Your task to perform on an android device: Show me productivity apps on the Play Store Image 0: 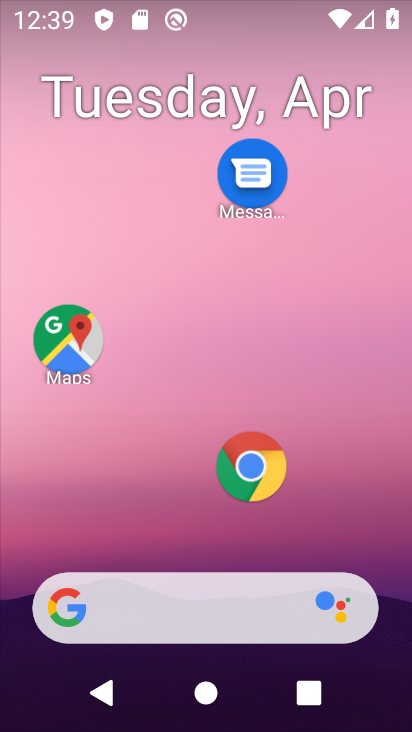
Step 0: drag from (104, 514) to (158, 52)
Your task to perform on an android device: Show me productivity apps on the Play Store Image 1: 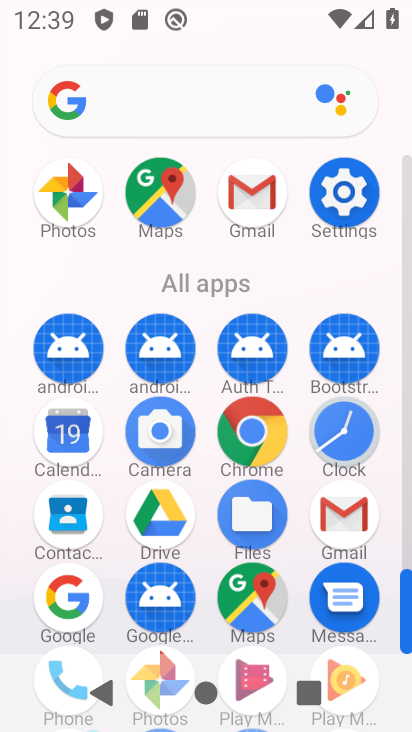
Step 1: drag from (202, 560) to (253, 308)
Your task to perform on an android device: Show me productivity apps on the Play Store Image 2: 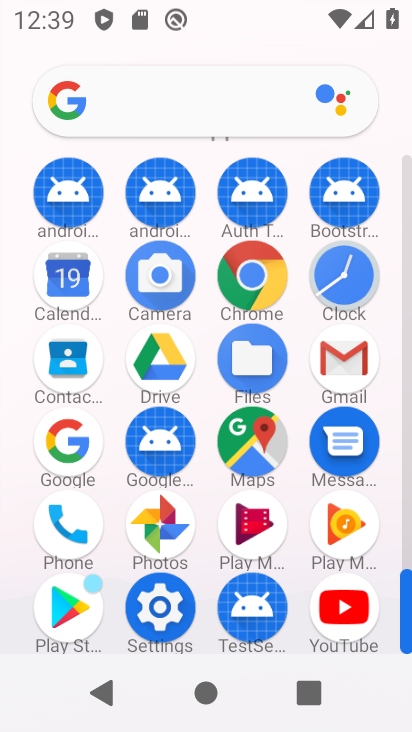
Step 2: click (78, 605)
Your task to perform on an android device: Show me productivity apps on the Play Store Image 3: 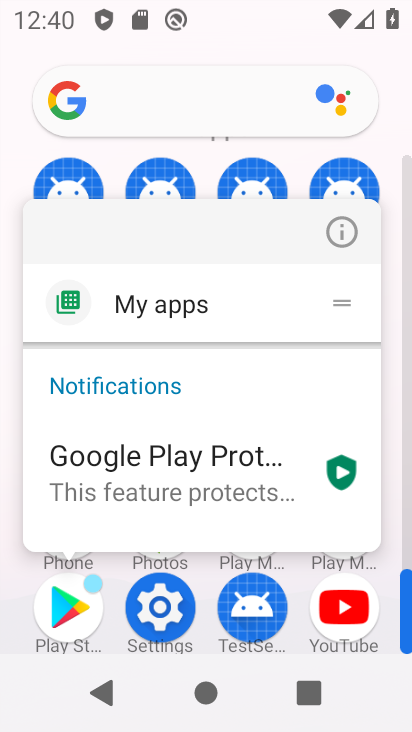
Step 3: click (77, 591)
Your task to perform on an android device: Show me productivity apps on the Play Store Image 4: 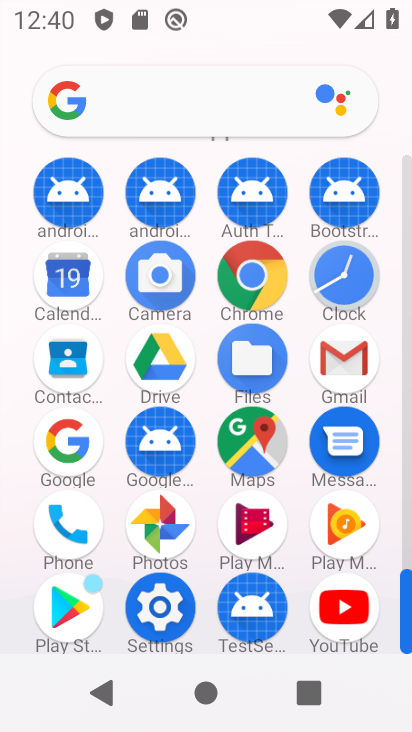
Step 4: click (77, 591)
Your task to perform on an android device: Show me productivity apps on the Play Store Image 5: 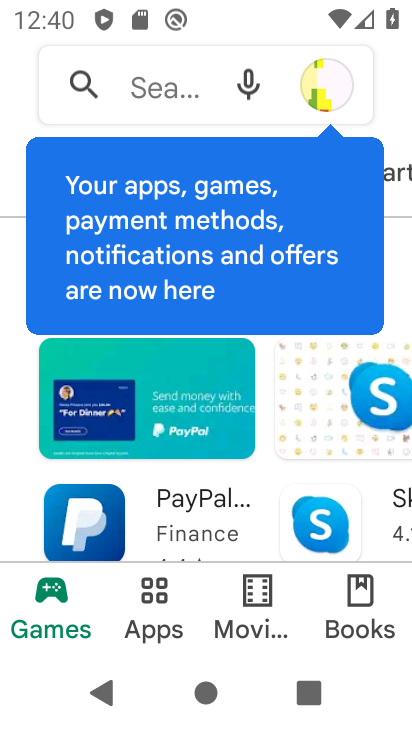
Step 5: click (156, 586)
Your task to perform on an android device: Show me productivity apps on the Play Store Image 6: 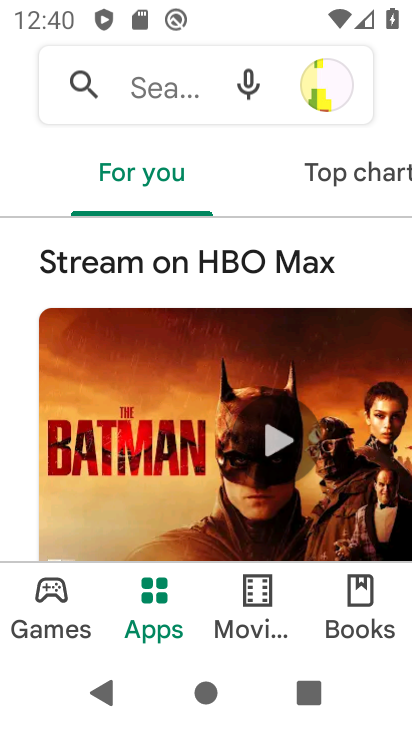
Step 6: drag from (340, 177) to (133, 158)
Your task to perform on an android device: Show me productivity apps on the Play Store Image 7: 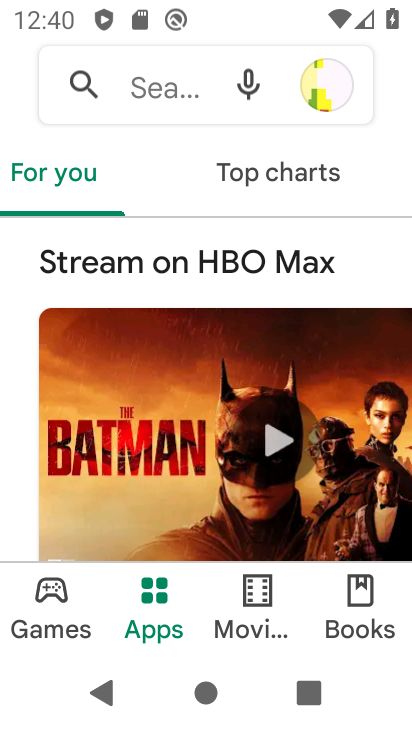
Step 7: drag from (332, 168) to (128, 156)
Your task to perform on an android device: Show me productivity apps on the Play Store Image 8: 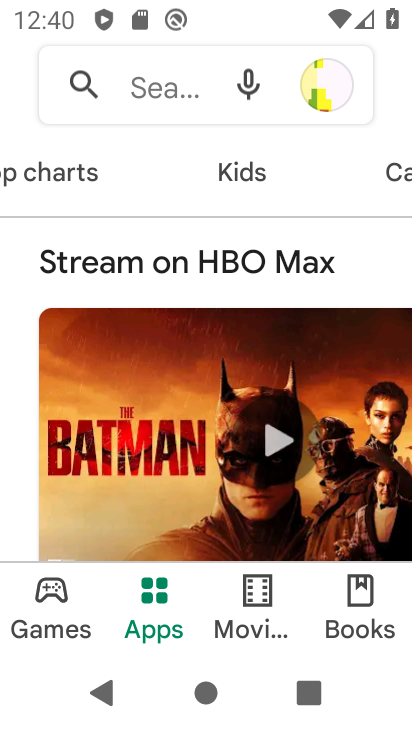
Step 8: drag from (381, 183) to (76, 140)
Your task to perform on an android device: Show me productivity apps on the Play Store Image 9: 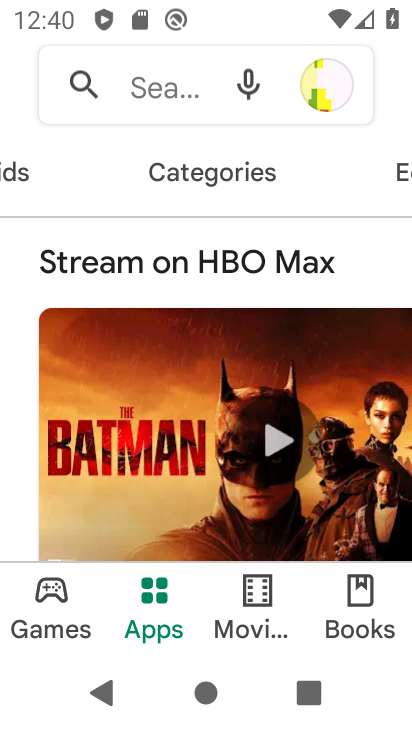
Step 9: click (226, 170)
Your task to perform on an android device: Show me productivity apps on the Play Store Image 10: 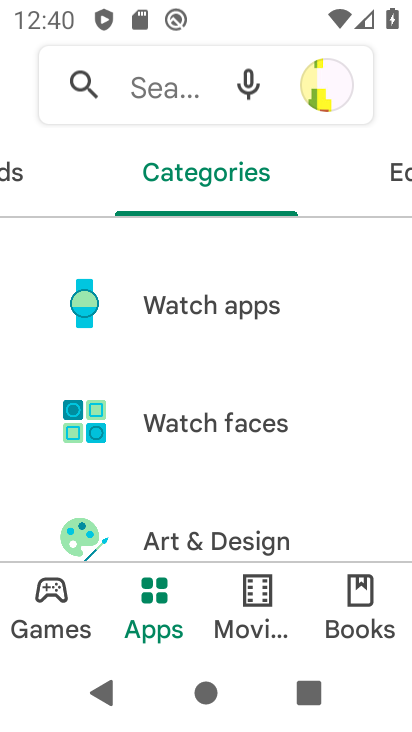
Step 10: drag from (271, 466) to (258, 301)
Your task to perform on an android device: Show me productivity apps on the Play Store Image 11: 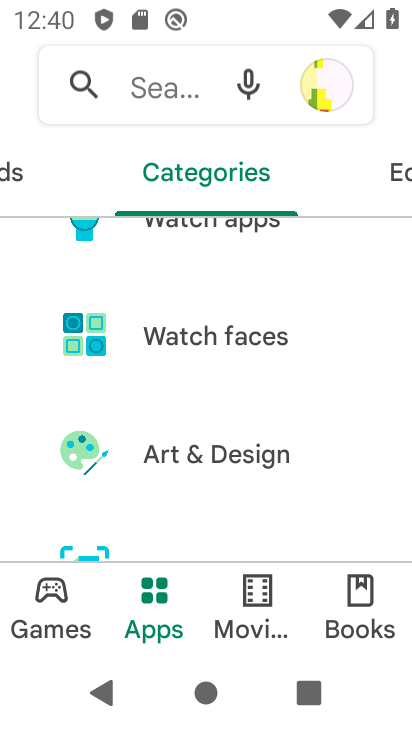
Step 11: drag from (201, 477) to (216, 311)
Your task to perform on an android device: Show me productivity apps on the Play Store Image 12: 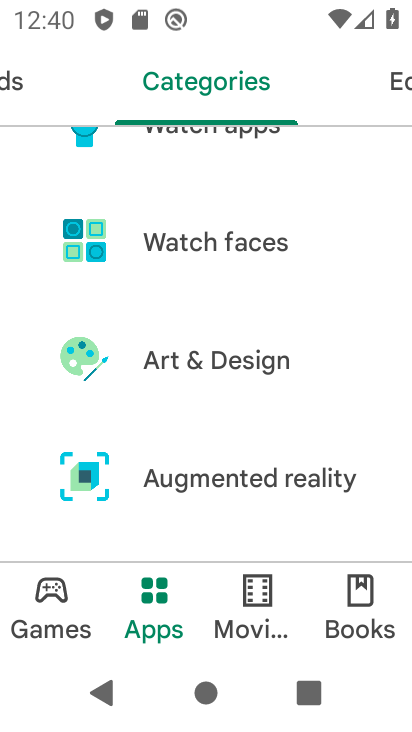
Step 12: drag from (178, 464) to (172, 228)
Your task to perform on an android device: Show me productivity apps on the Play Store Image 13: 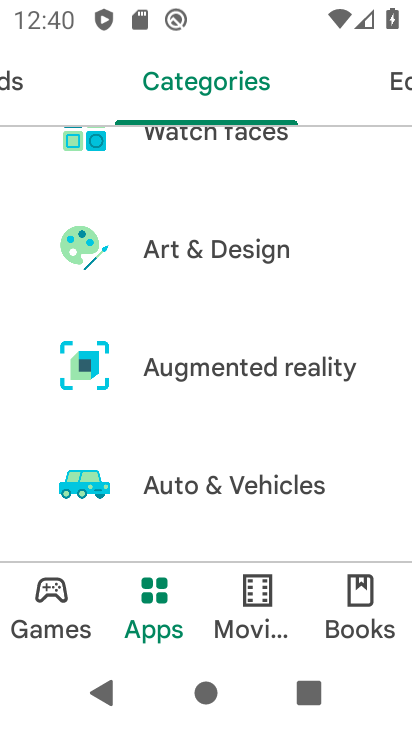
Step 13: drag from (113, 458) to (117, 209)
Your task to perform on an android device: Show me productivity apps on the Play Store Image 14: 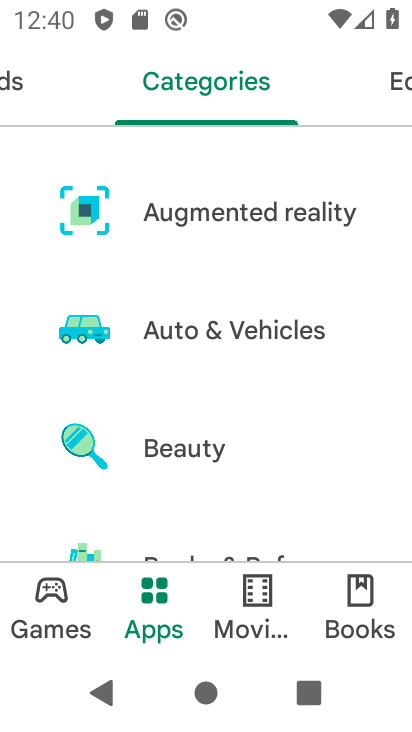
Step 14: drag from (199, 470) to (189, 252)
Your task to perform on an android device: Show me productivity apps on the Play Store Image 15: 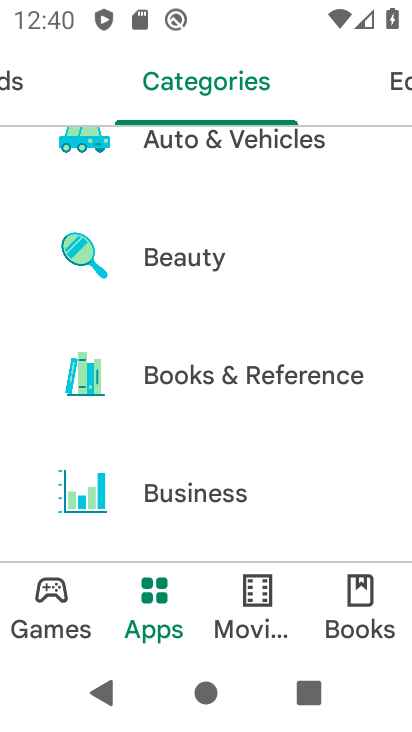
Step 15: drag from (153, 421) to (165, 224)
Your task to perform on an android device: Show me productivity apps on the Play Store Image 16: 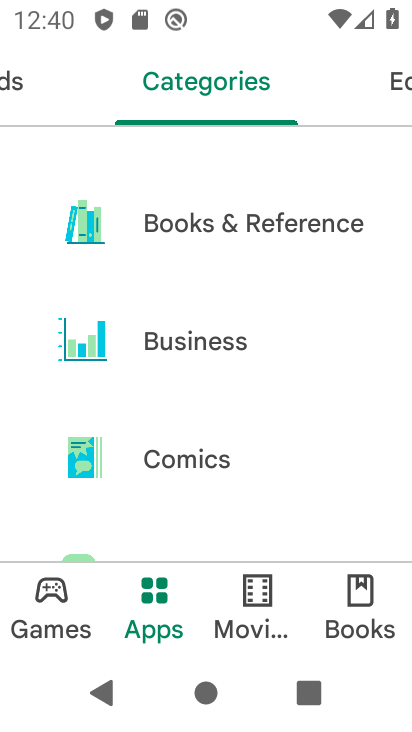
Step 16: drag from (124, 498) to (54, 296)
Your task to perform on an android device: Show me productivity apps on the Play Store Image 17: 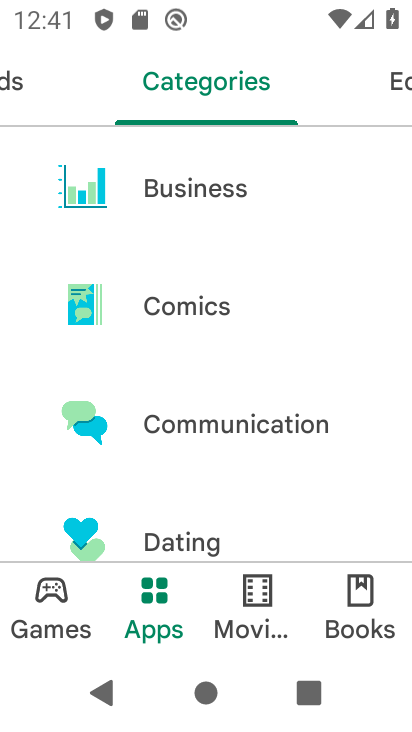
Step 17: drag from (112, 481) to (87, 300)
Your task to perform on an android device: Show me productivity apps on the Play Store Image 18: 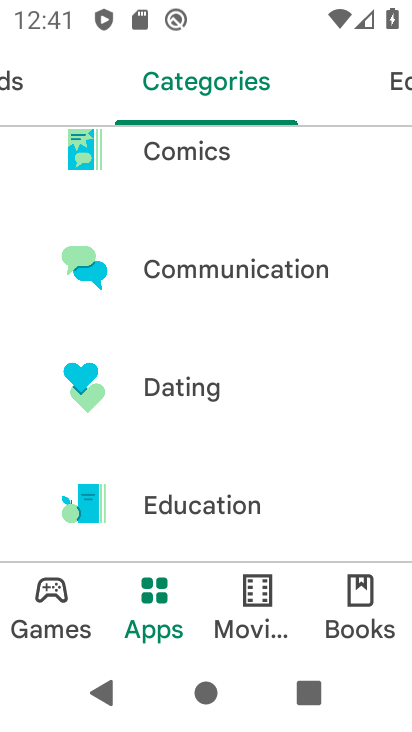
Step 18: drag from (111, 509) to (62, 314)
Your task to perform on an android device: Show me productivity apps on the Play Store Image 19: 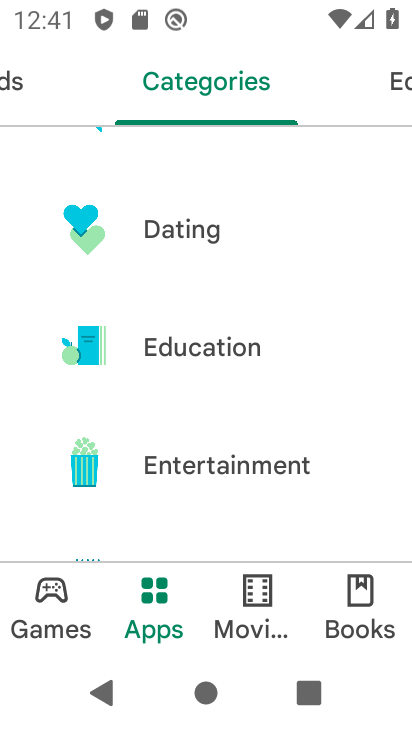
Step 19: drag from (105, 520) to (70, 313)
Your task to perform on an android device: Show me productivity apps on the Play Store Image 20: 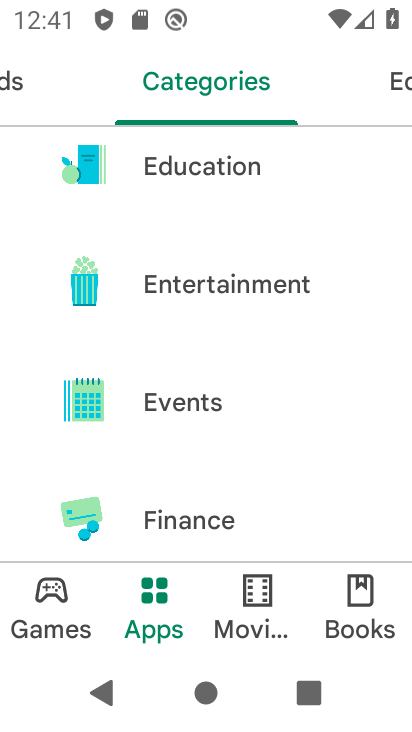
Step 20: drag from (131, 520) to (111, 357)
Your task to perform on an android device: Show me productivity apps on the Play Store Image 21: 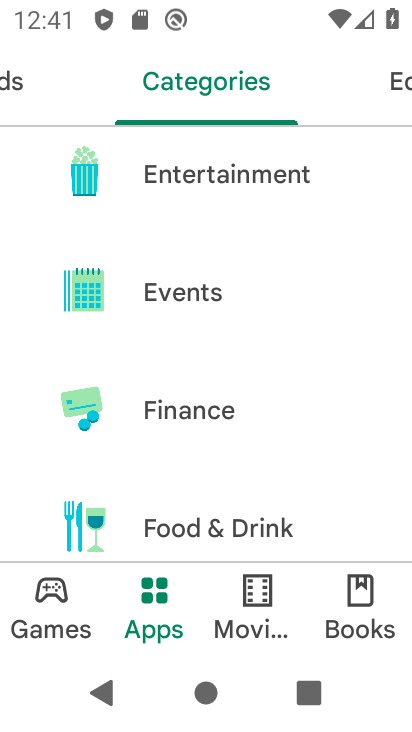
Step 21: drag from (116, 502) to (122, 353)
Your task to perform on an android device: Show me productivity apps on the Play Store Image 22: 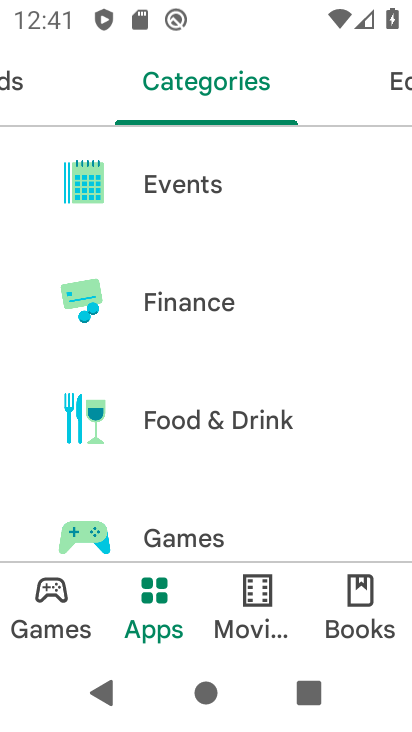
Step 22: drag from (94, 489) to (103, 334)
Your task to perform on an android device: Show me productivity apps on the Play Store Image 23: 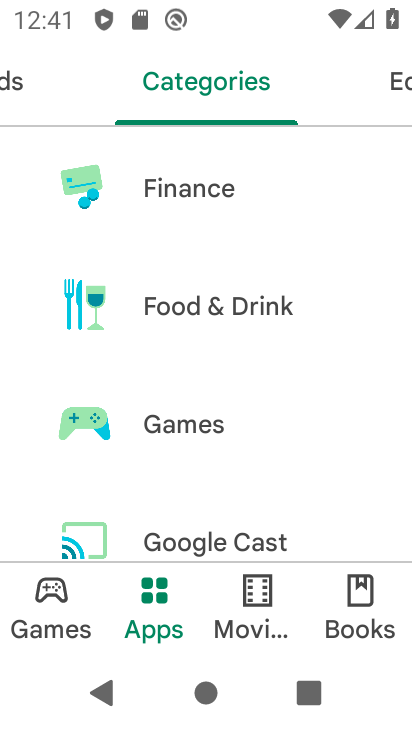
Step 23: drag from (138, 478) to (133, 246)
Your task to perform on an android device: Show me productivity apps on the Play Store Image 24: 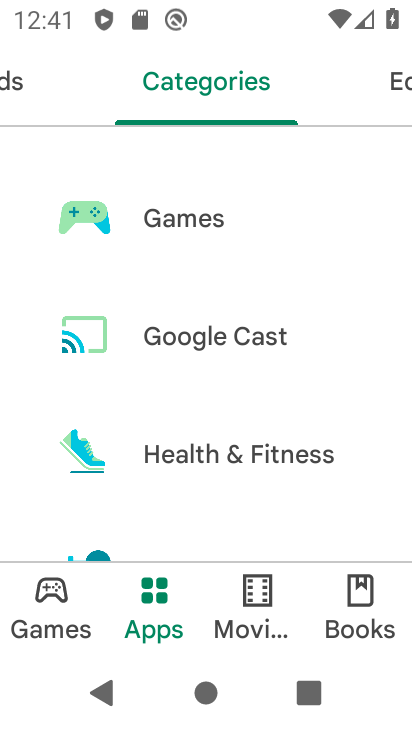
Step 24: drag from (146, 489) to (116, 338)
Your task to perform on an android device: Show me productivity apps on the Play Store Image 25: 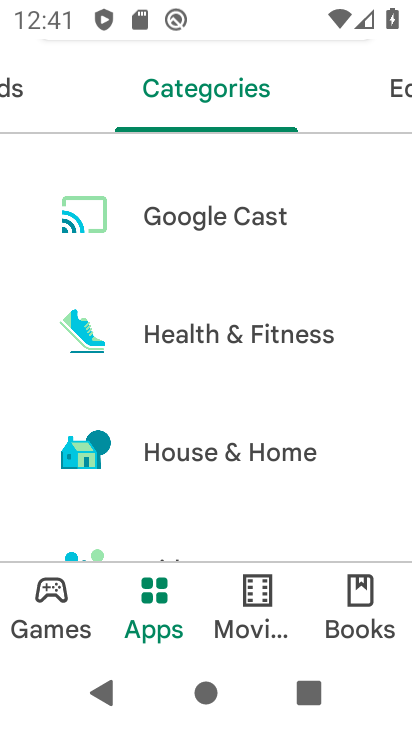
Step 25: drag from (147, 482) to (145, 338)
Your task to perform on an android device: Show me productivity apps on the Play Store Image 26: 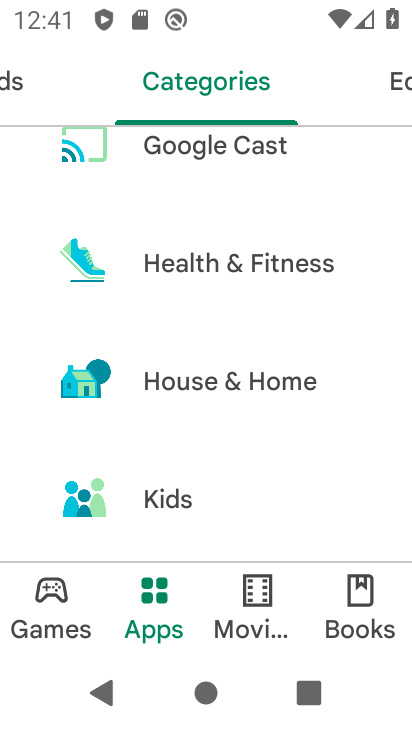
Step 26: drag from (129, 486) to (127, 326)
Your task to perform on an android device: Show me productivity apps on the Play Store Image 27: 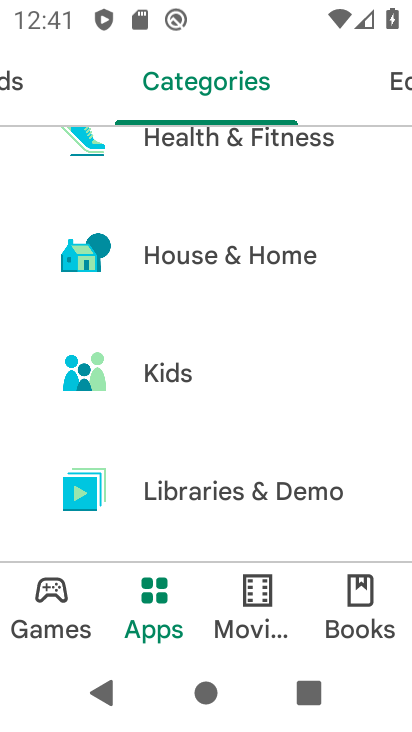
Step 27: drag from (129, 511) to (133, 353)
Your task to perform on an android device: Show me productivity apps on the Play Store Image 28: 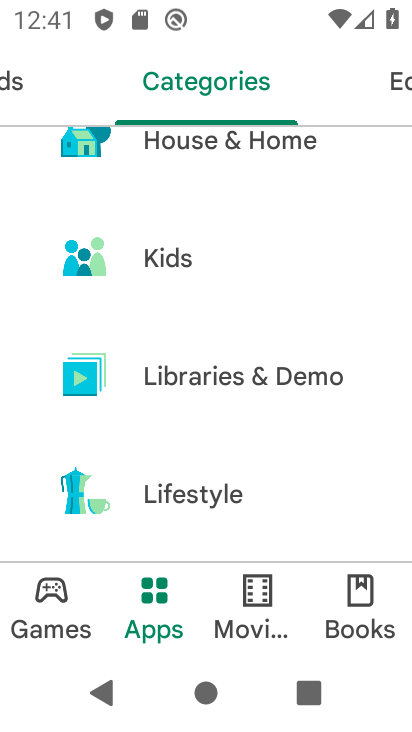
Step 28: drag from (131, 501) to (125, 366)
Your task to perform on an android device: Show me productivity apps on the Play Store Image 29: 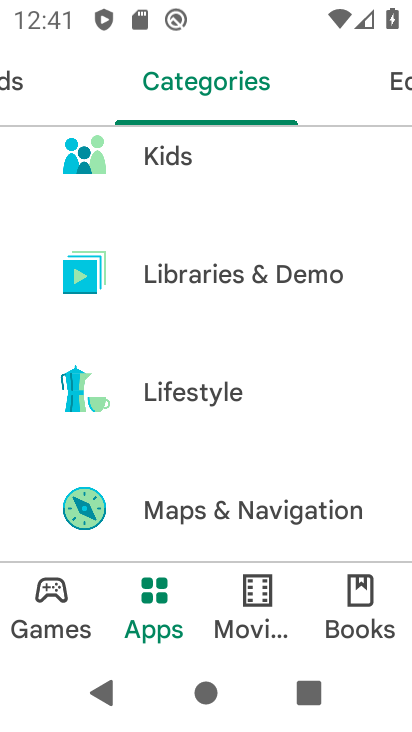
Step 29: drag from (136, 522) to (151, 399)
Your task to perform on an android device: Show me productivity apps on the Play Store Image 30: 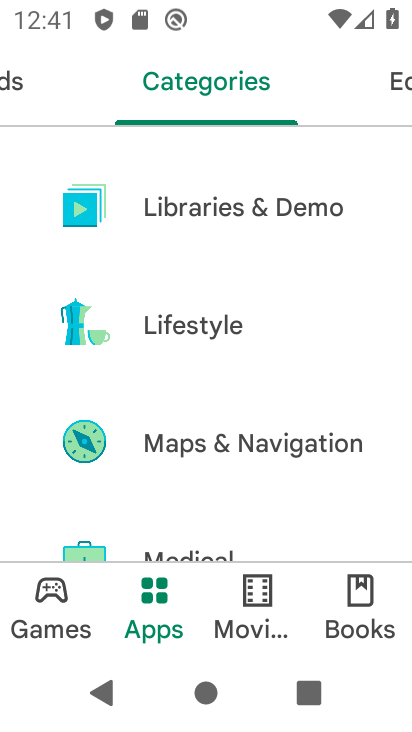
Step 30: drag from (145, 492) to (139, 335)
Your task to perform on an android device: Show me productivity apps on the Play Store Image 31: 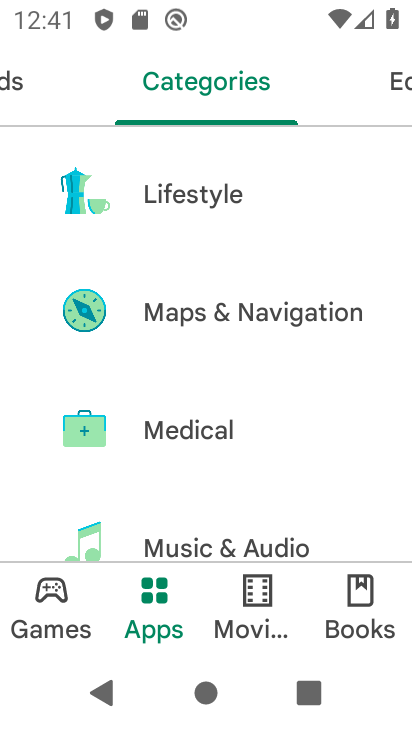
Step 31: drag from (116, 502) to (150, 281)
Your task to perform on an android device: Show me productivity apps on the Play Store Image 32: 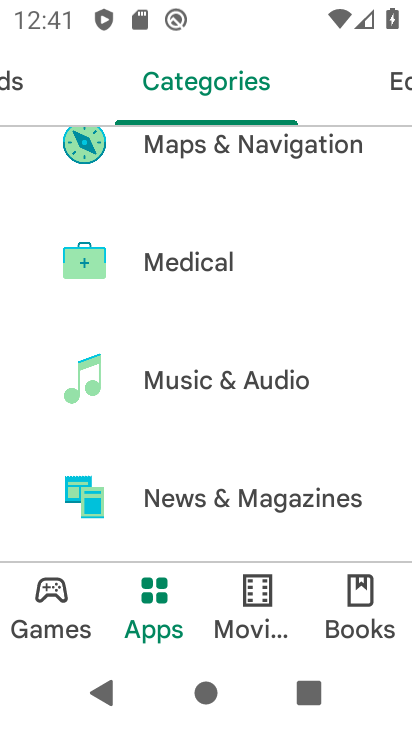
Step 32: drag from (153, 453) to (180, 278)
Your task to perform on an android device: Show me productivity apps on the Play Store Image 33: 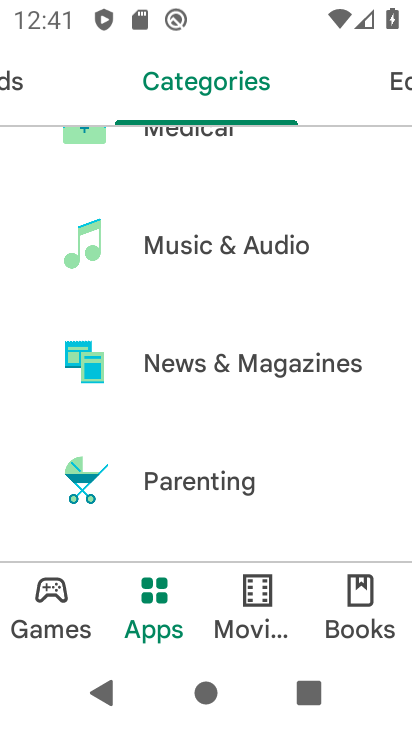
Step 33: drag from (229, 471) to (186, 256)
Your task to perform on an android device: Show me productivity apps on the Play Store Image 34: 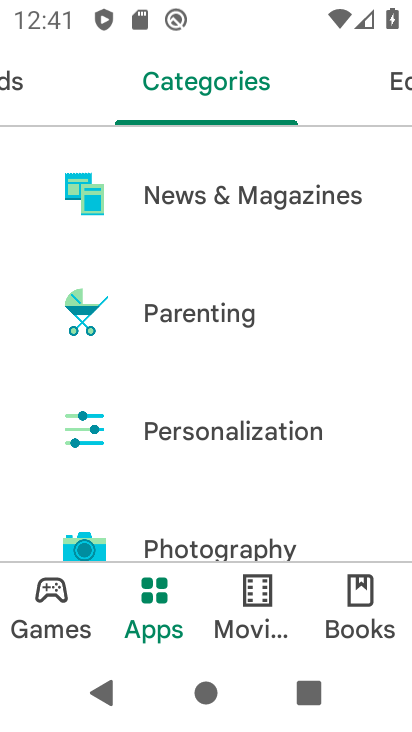
Step 34: drag from (180, 501) to (217, 321)
Your task to perform on an android device: Show me productivity apps on the Play Store Image 35: 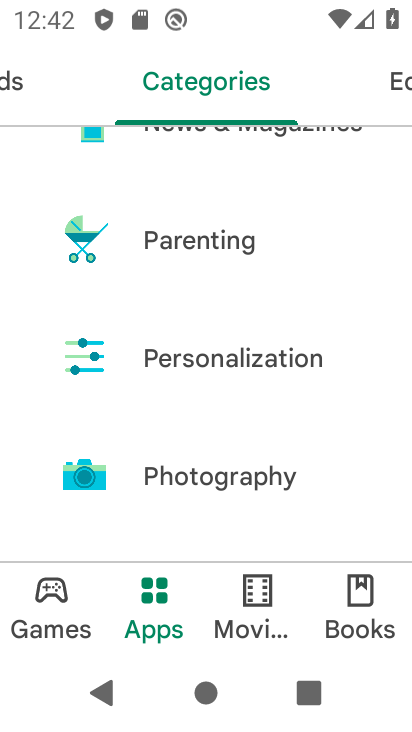
Step 35: drag from (202, 526) to (213, 346)
Your task to perform on an android device: Show me productivity apps on the Play Store Image 36: 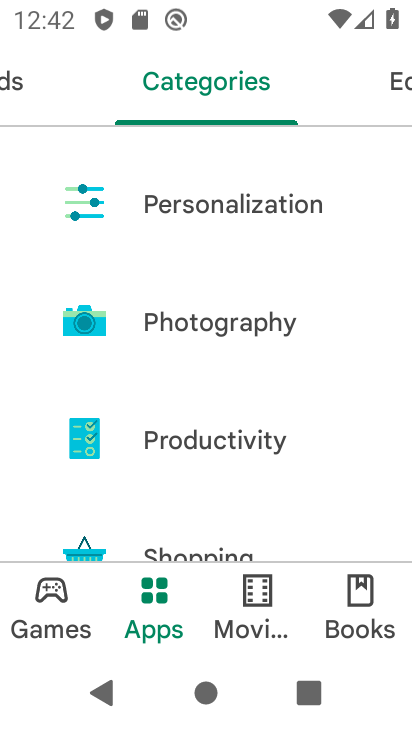
Step 36: click (242, 428)
Your task to perform on an android device: Show me productivity apps on the Play Store Image 37: 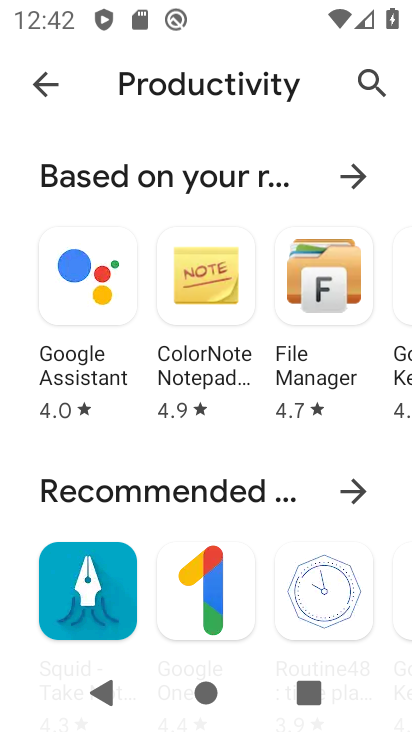
Step 37: task complete